Your task to perform on an android device: open a new tab in the chrome app Image 0: 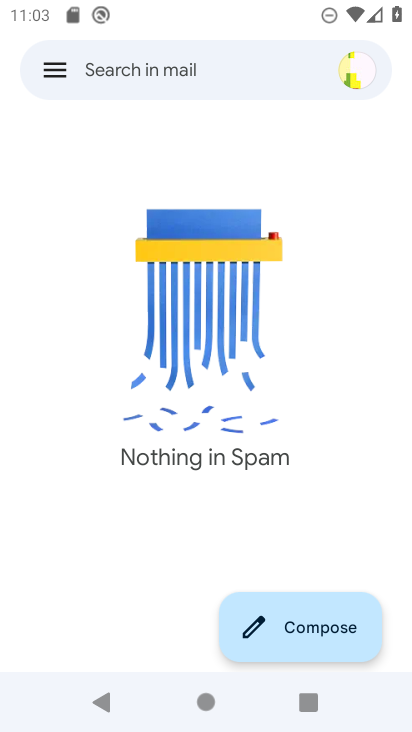
Step 0: press home button
Your task to perform on an android device: open a new tab in the chrome app Image 1: 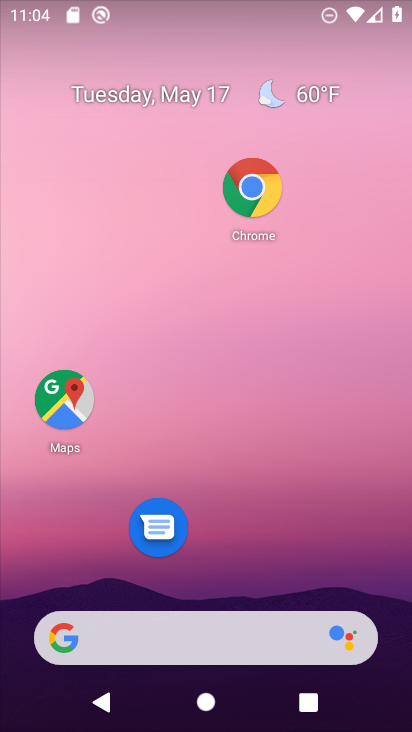
Step 1: drag from (281, 569) to (318, 181)
Your task to perform on an android device: open a new tab in the chrome app Image 2: 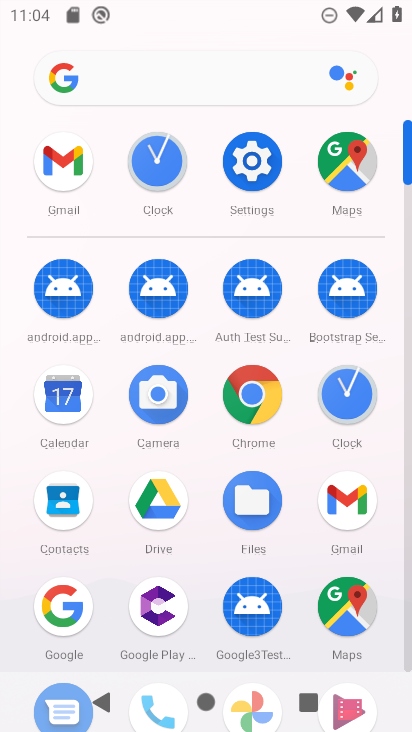
Step 2: click (244, 390)
Your task to perform on an android device: open a new tab in the chrome app Image 3: 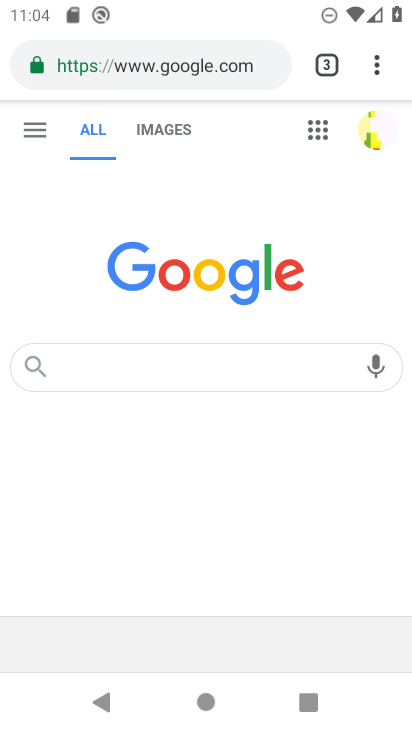
Step 3: task complete